Your task to perform on an android device: Set the phone to "Do not disturb". Image 0: 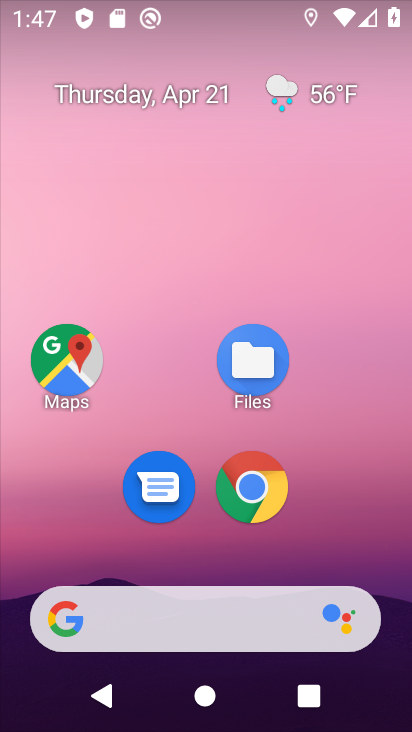
Step 0: drag from (360, 522) to (325, 48)
Your task to perform on an android device: Set the phone to "Do not disturb". Image 1: 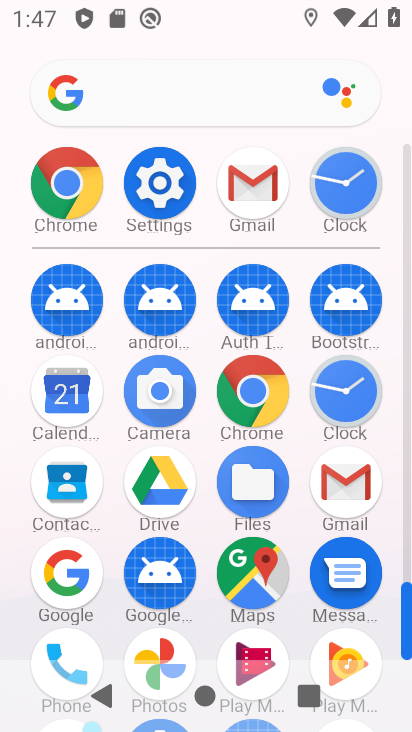
Step 1: drag from (296, 609) to (300, 279)
Your task to perform on an android device: Set the phone to "Do not disturb". Image 2: 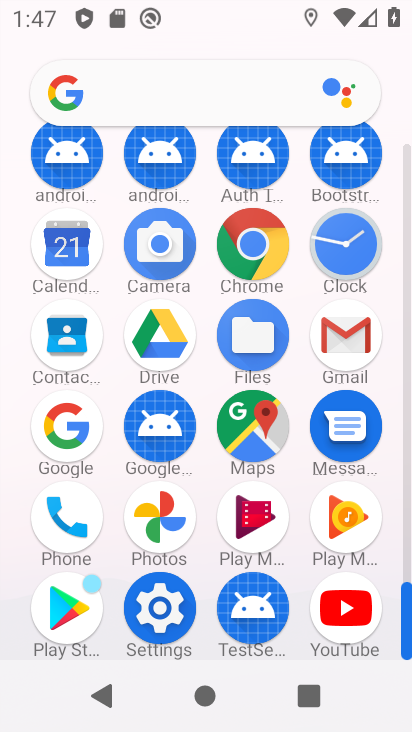
Step 2: click (161, 635)
Your task to perform on an android device: Set the phone to "Do not disturb". Image 3: 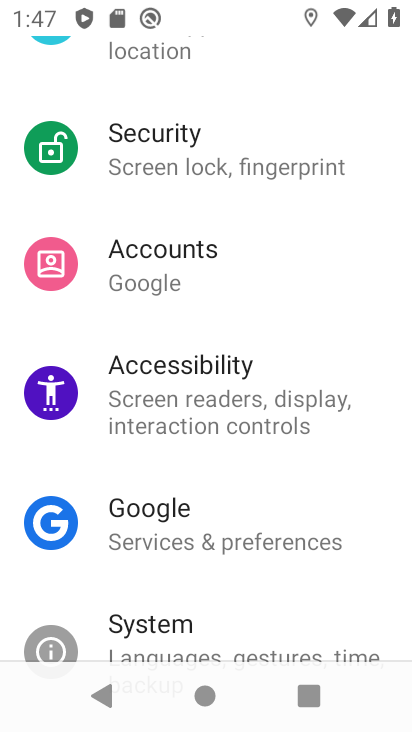
Step 3: drag from (284, 215) to (348, 577)
Your task to perform on an android device: Set the phone to "Do not disturb". Image 4: 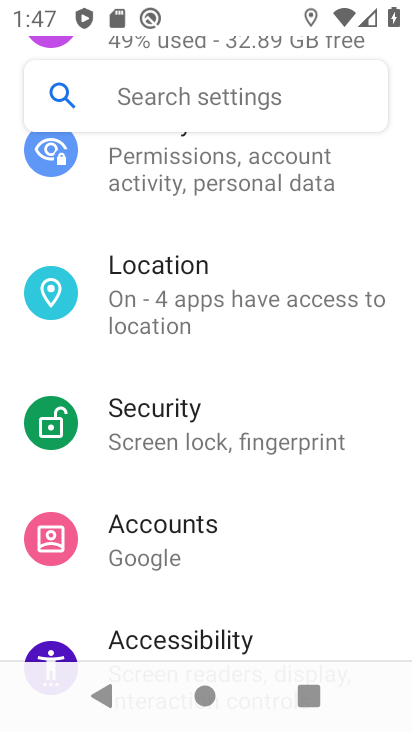
Step 4: drag from (307, 257) to (353, 606)
Your task to perform on an android device: Set the phone to "Do not disturb". Image 5: 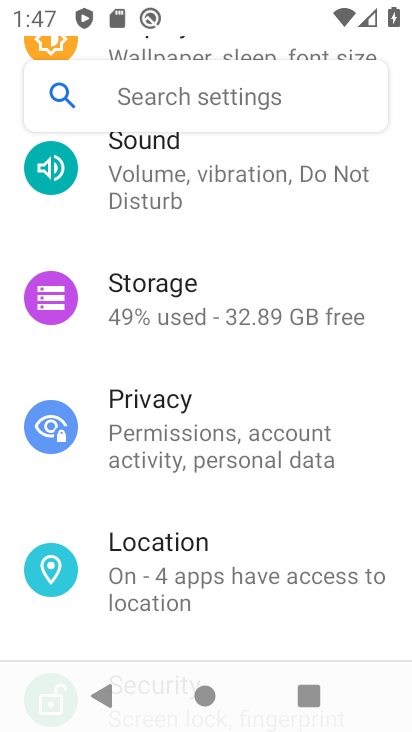
Step 5: click (175, 179)
Your task to perform on an android device: Set the phone to "Do not disturb". Image 6: 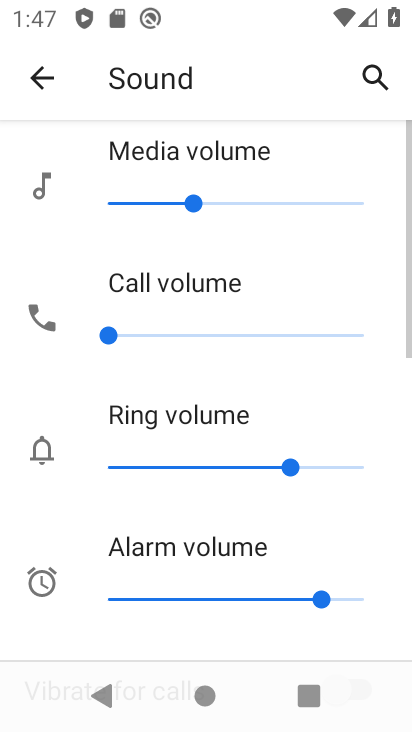
Step 6: drag from (212, 623) to (305, 189)
Your task to perform on an android device: Set the phone to "Do not disturb". Image 7: 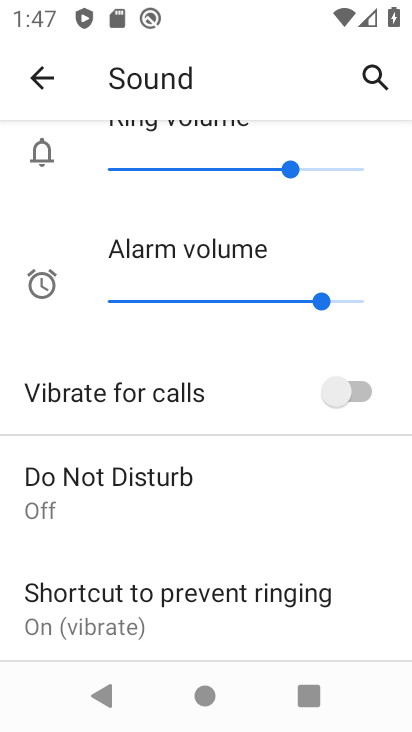
Step 7: click (73, 507)
Your task to perform on an android device: Set the phone to "Do not disturb". Image 8: 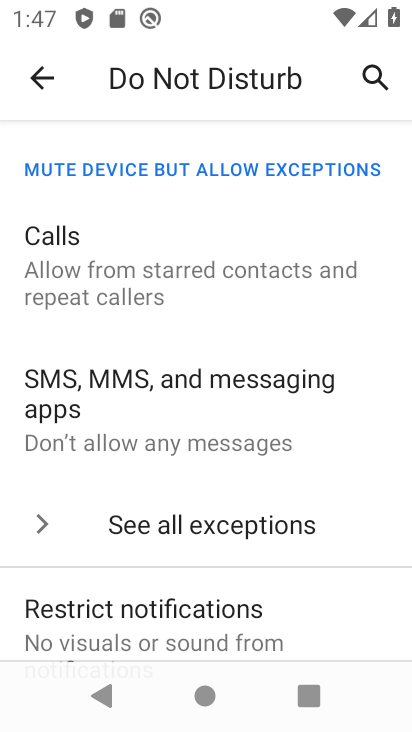
Step 8: drag from (306, 606) to (305, 228)
Your task to perform on an android device: Set the phone to "Do not disturb". Image 9: 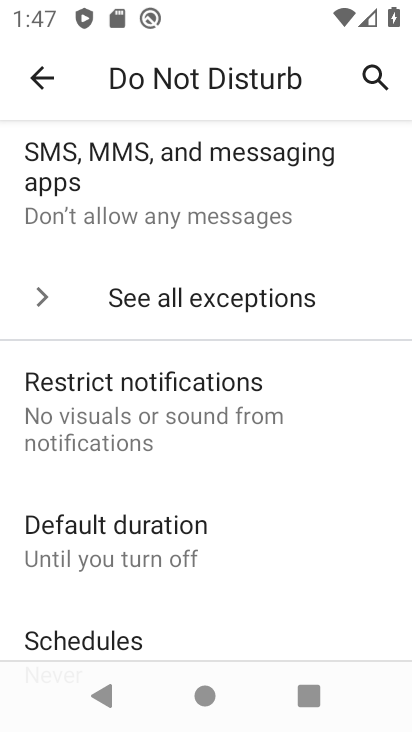
Step 9: drag from (298, 611) to (317, 249)
Your task to perform on an android device: Set the phone to "Do not disturb". Image 10: 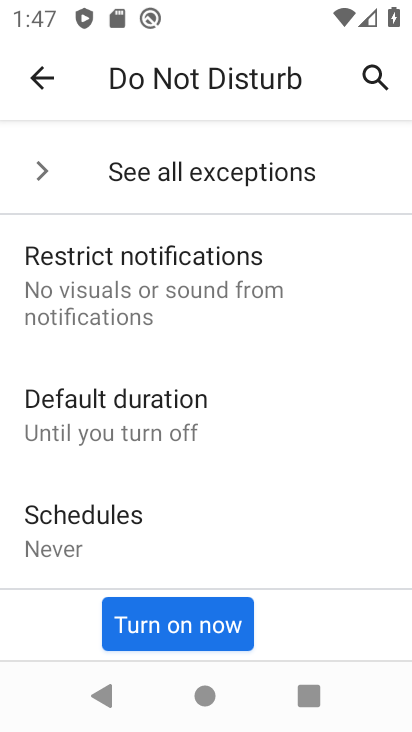
Step 10: click (198, 619)
Your task to perform on an android device: Set the phone to "Do not disturb". Image 11: 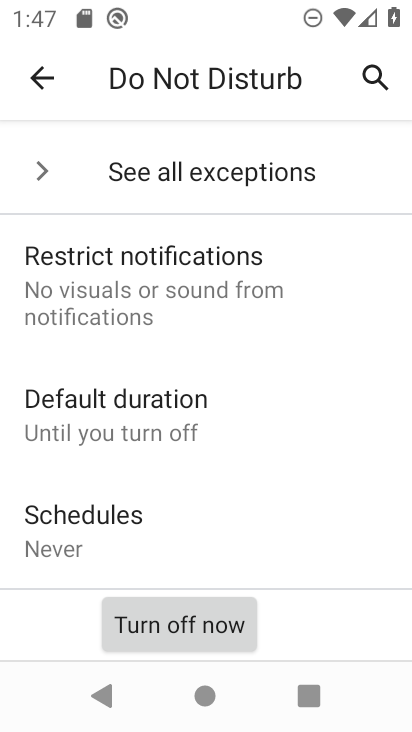
Step 11: task complete